Your task to perform on an android device: check data usage Image 0: 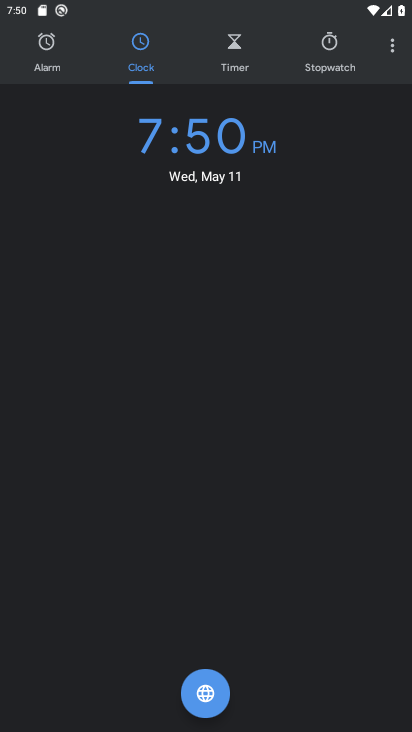
Step 0: press back button
Your task to perform on an android device: check data usage Image 1: 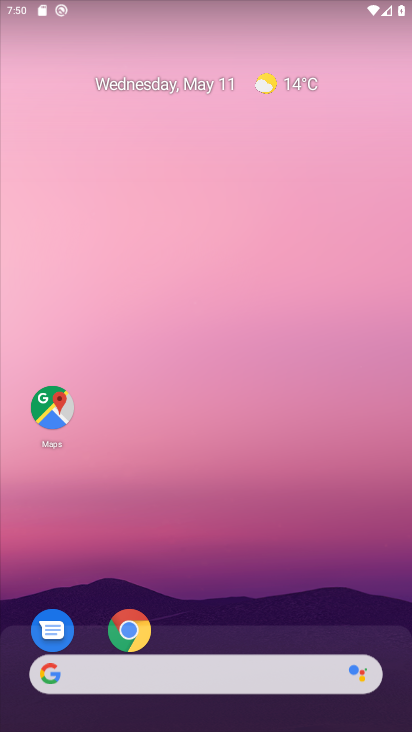
Step 1: drag from (7, 706) to (351, 149)
Your task to perform on an android device: check data usage Image 2: 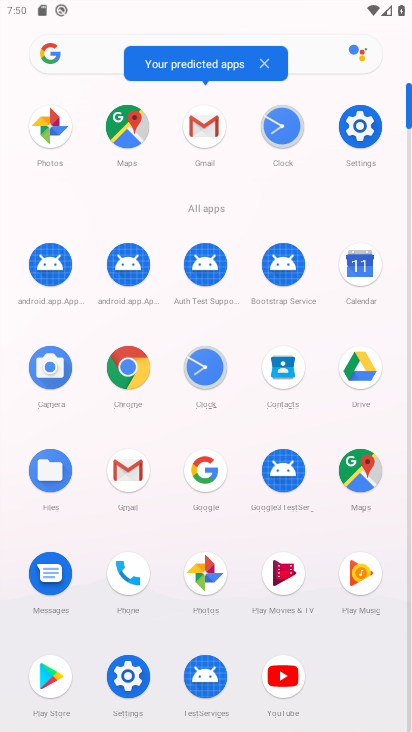
Step 2: click (353, 135)
Your task to perform on an android device: check data usage Image 3: 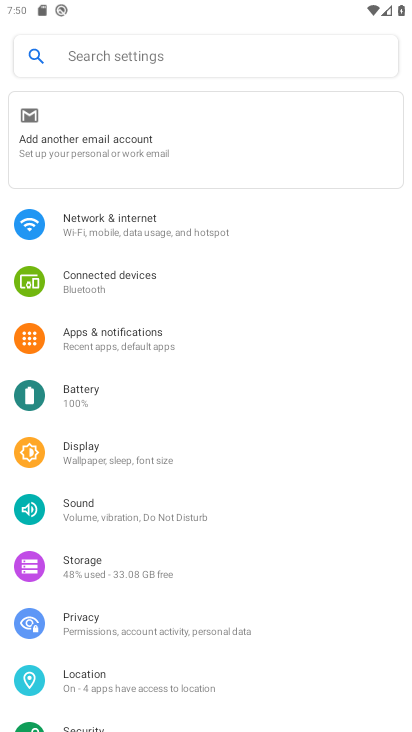
Step 3: click (91, 211)
Your task to perform on an android device: check data usage Image 4: 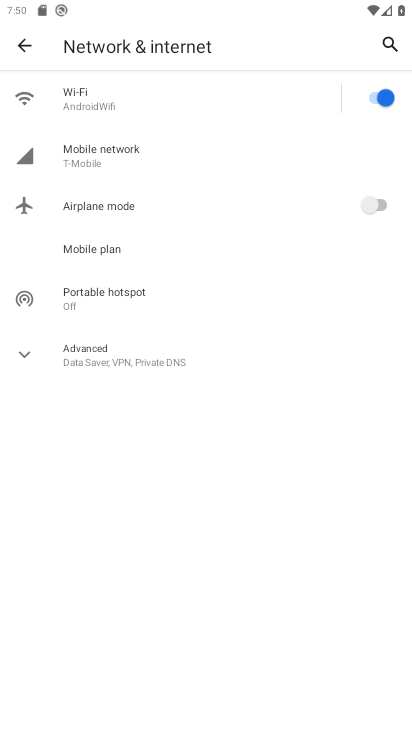
Step 4: click (103, 151)
Your task to perform on an android device: check data usage Image 5: 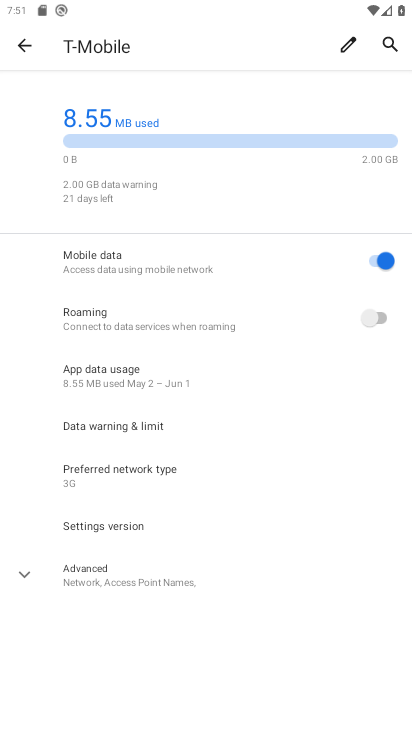
Step 5: task complete